Your task to perform on an android device: set the timer Image 0: 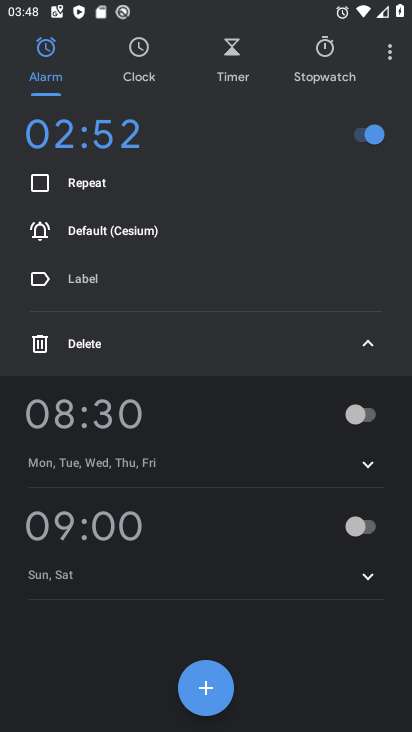
Step 0: press home button
Your task to perform on an android device: set the timer Image 1: 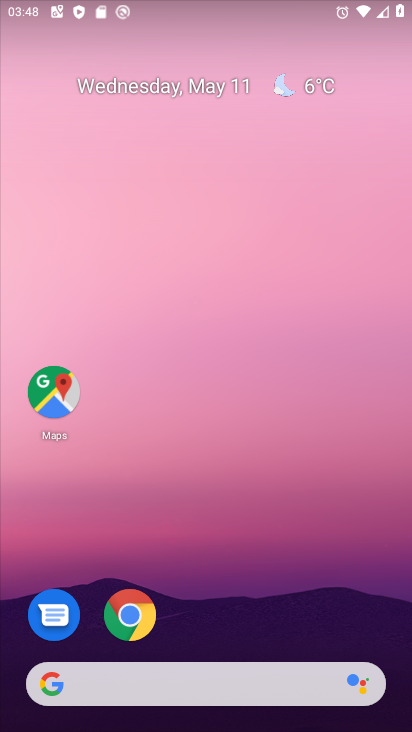
Step 1: drag from (264, 562) to (232, 3)
Your task to perform on an android device: set the timer Image 2: 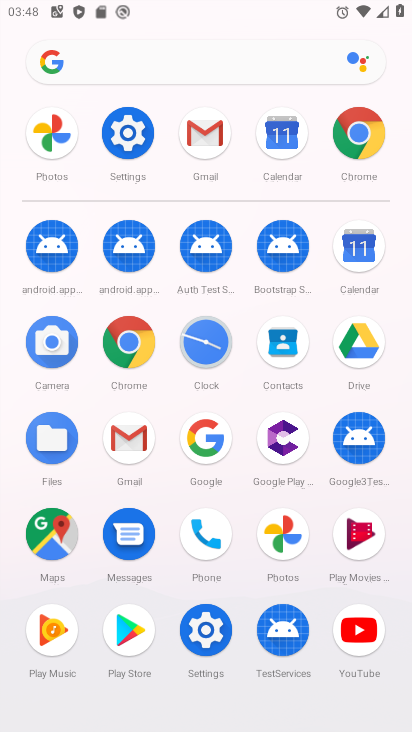
Step 2: click (201, 335)
Your task to perform on an android device: set the timer Image 3: 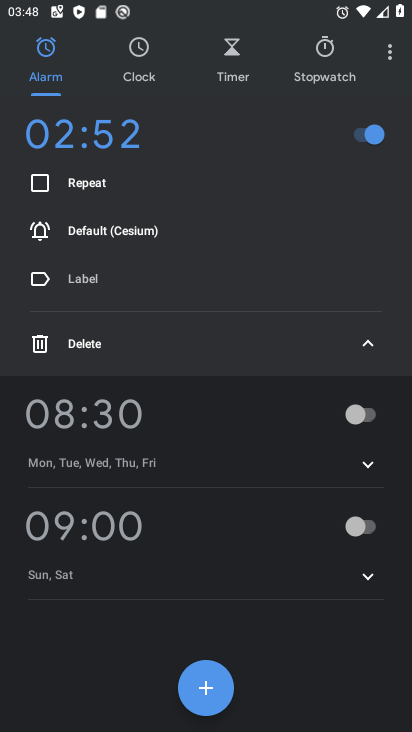
Step 3: click (239, 46)
Your task to perform on an android device: set the timer Image 4: 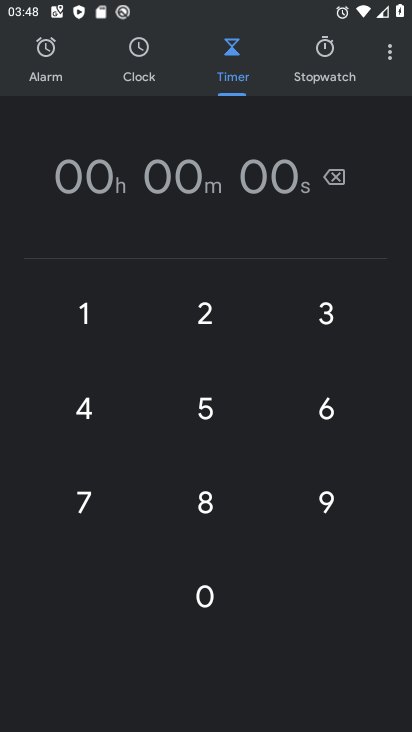
Step 4: click (209, 417)
Your task to perform on an android device: set the timer Image 5: 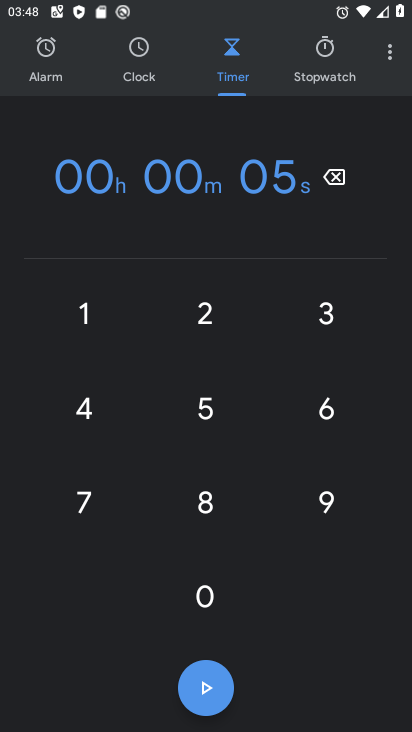
Step 5: task complete